Your task to perform on an android device: Search for the new lego star wars 2021 on Target Image 0: 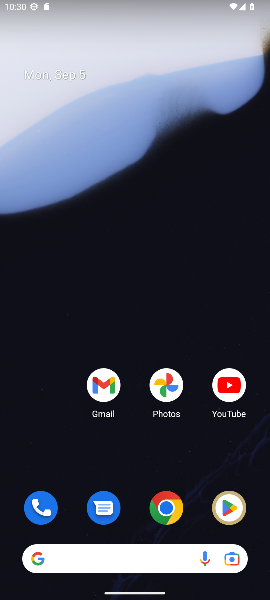
Step 0: drag from (144, 471) to (164, 10)
Your task to perform on an android device: Search for the new lego star wars 2021 on Target Image 1: 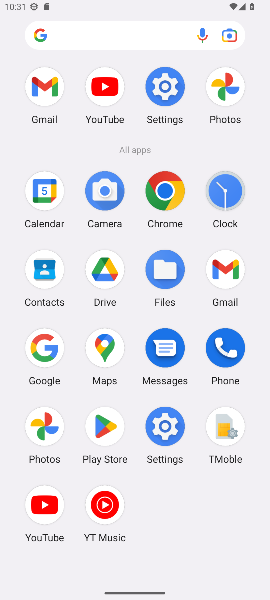
Step 1: click (162, 188)
Your task to perform on an android device: Search for the new lego star wars 2021 on Target Image 2: 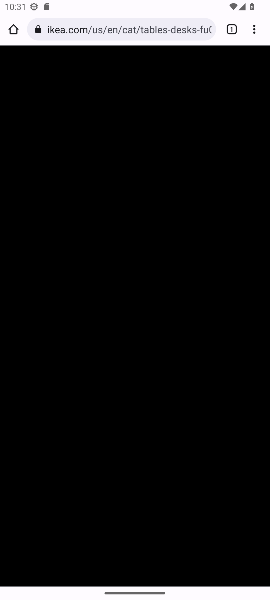
Step 2: click (106, 27)
Your task to perform on an android device: Search for the new lego star wars 2021 on Target Image 3: 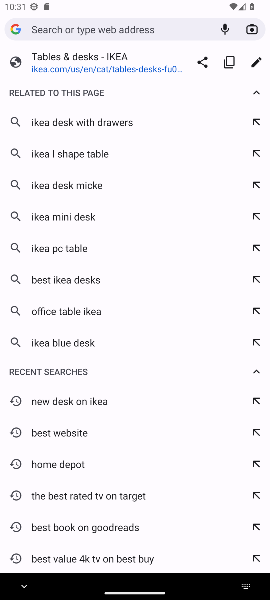
Step 3: type "new logo star wars 2021 on Target"
Your task to perform on an android device: Search for the new lego star wars 2021 on Target Image 4: 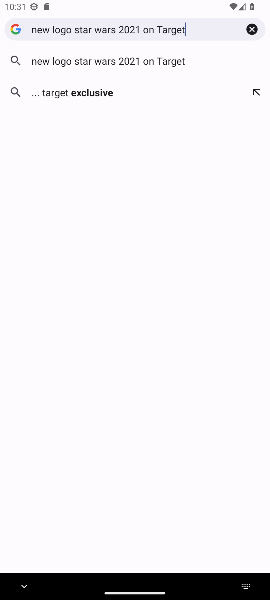
Step 4: press enter
Your task to perform on an android device: Search for the new lego star wars 2021 on Target Image 5: 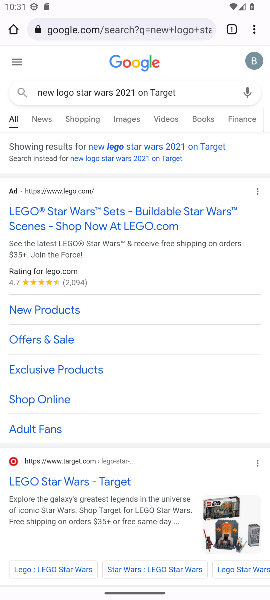
Step 5: drag from (117, 506) to (87, 178)
Your task to perform on an android device: Search for the new lego star wars 2021 on Target Image 6: 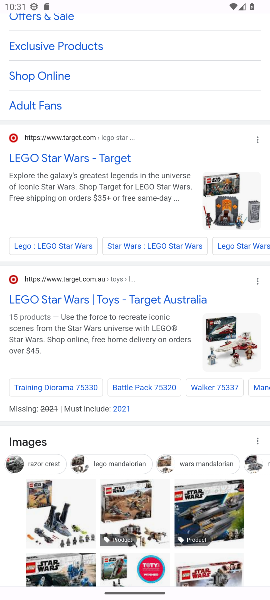
Step 6: click (96, 159)
Your task to perform on an android device: Search for the new lego star wars 2021 on Target Image 7: 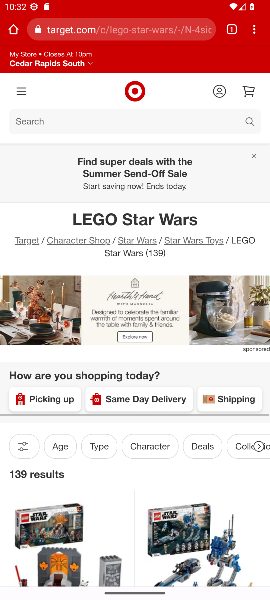
Step 7: task complete